Your task to perform on an android device: set an alarm Image 0: 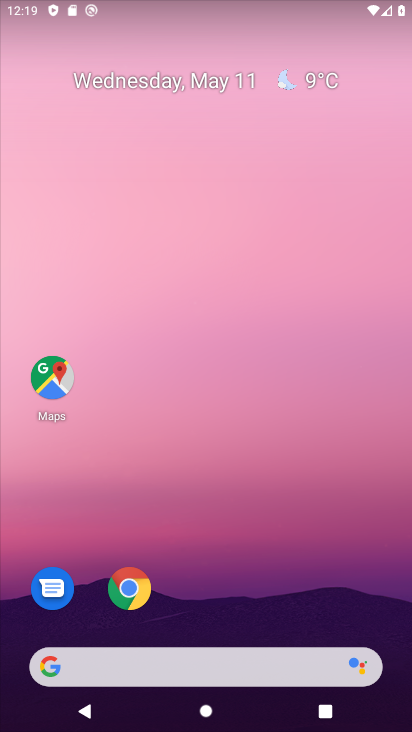
Step 0: drag from (303, 605) to (236, 2)
Your task to perform on an android device: set an alarm Image 1: 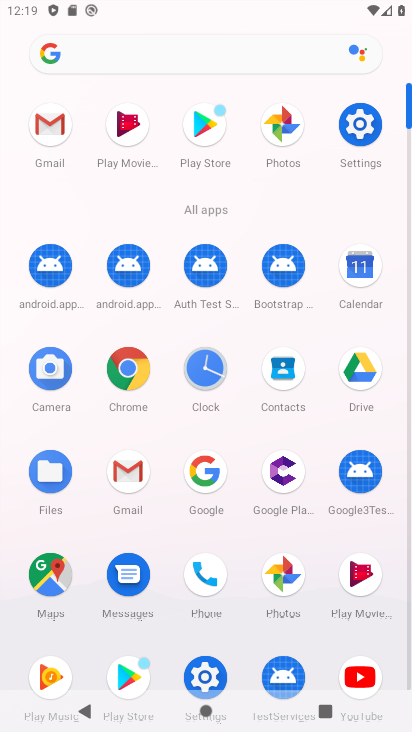
Step 1: click (213, 376)
Your task to perform on an android device: set an alarm Image 2: 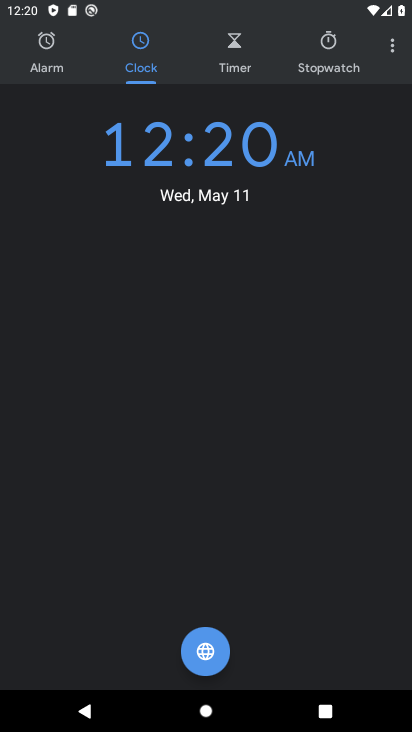
Step 2: click (37, 54)
Your task to perform on an android device: set an alarm Image 3: 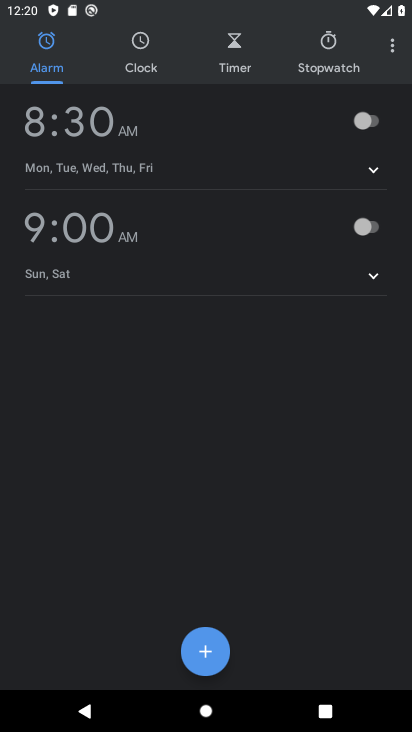
Step 3: click (204, 647)
Your task to perform on an android device: set an alarm Image 4: 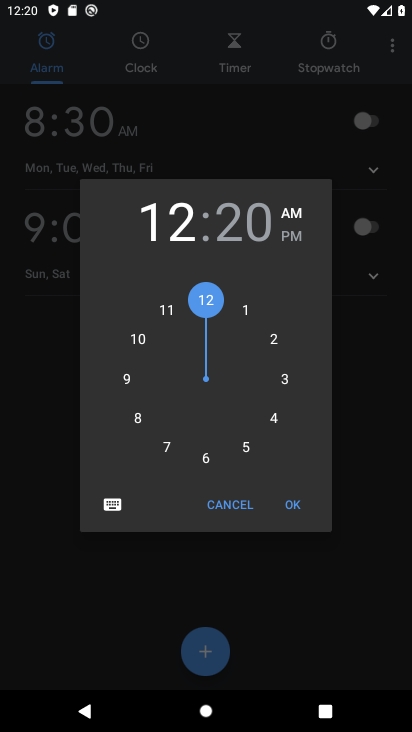
Step 4: click (274, 419)
Your task to perform on an android device: set an alarm Image 5: 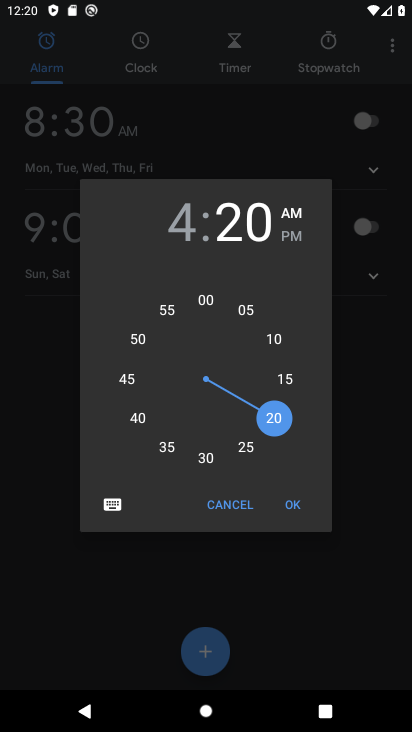
Step 5: click (207, 298)
Your task to perform on an android device: set an alarm Image 6: 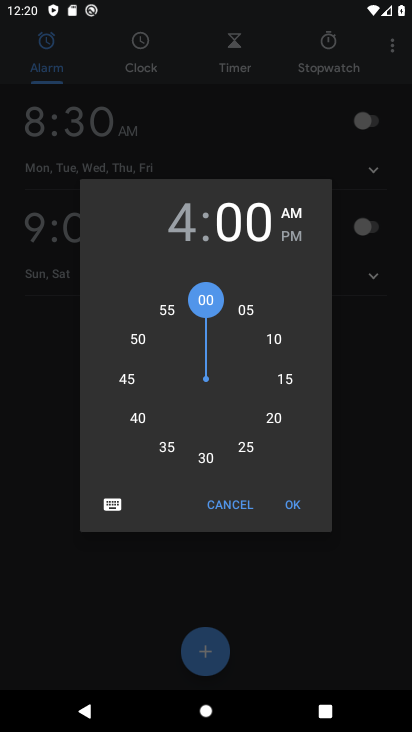
Step 6: click (290, 512)
Your task to perform on an android device: set an alarm Image 7: 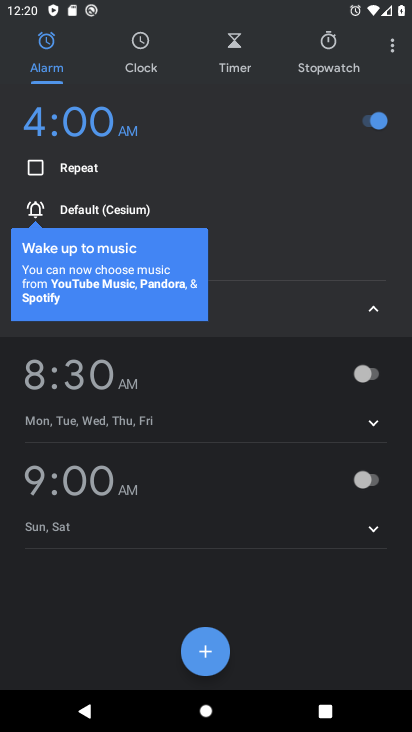
Step 7: task complete